Your task to perform on an android device: Show the shopping cart on amazon.com. Add razer blackwidow to the cart on amazon.com, then select checkout. Image 0: 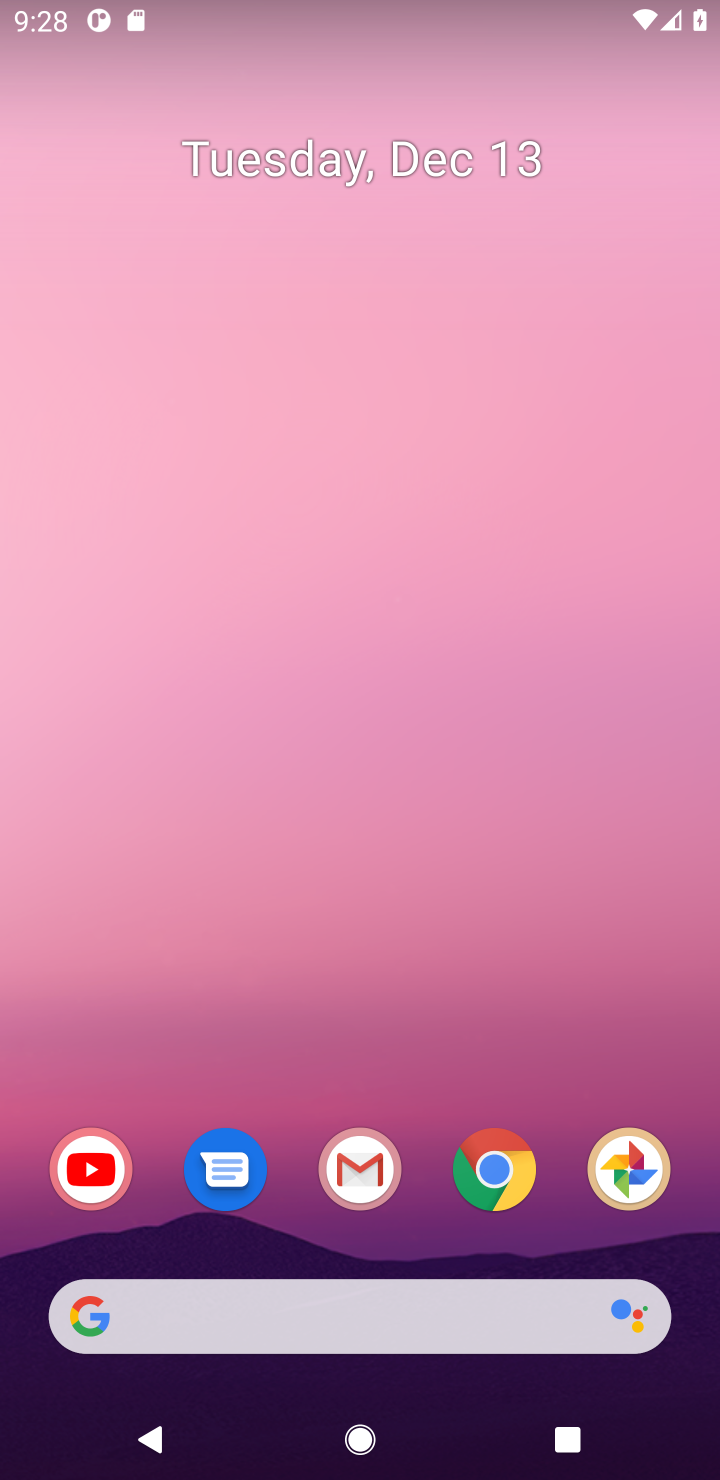
Step 0: click (390, 1278)
Your task to perform on an android device: Show the shopping cart on amazon.com. Add razer blackwidow to the cart on amazon.com, then select checkout. Image 1: 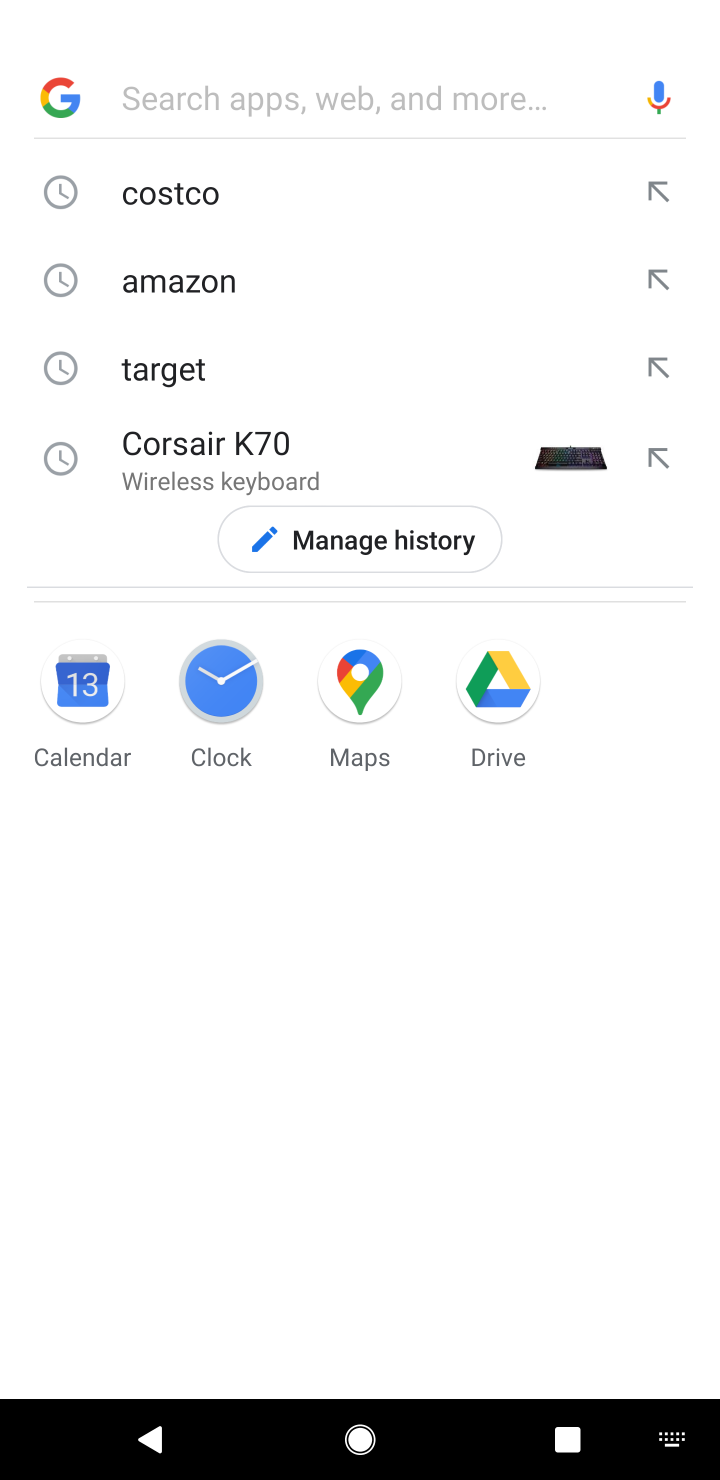
Step 1: click (210, 281)
Your task to perform on an android device: Show the shopping cart on amazon.com. Add razer blackwidow to the cart on amazon.com, then select checkout. Image 2: 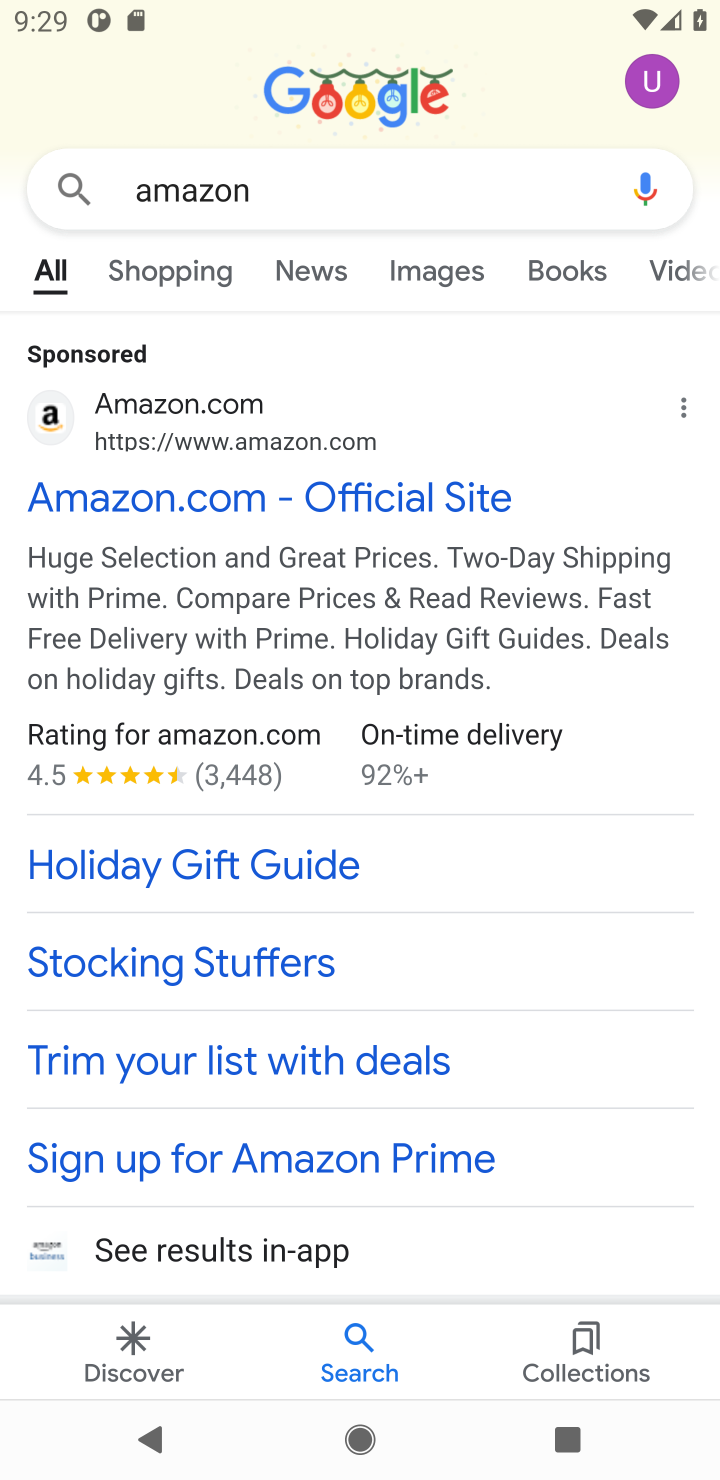
Step 2: click (184, 491)
Your task to perform on an android device: Show the shopping cart on amazon.com. Add razer blackwidow to the cart on amazon.com, then select checkout. Image 3: 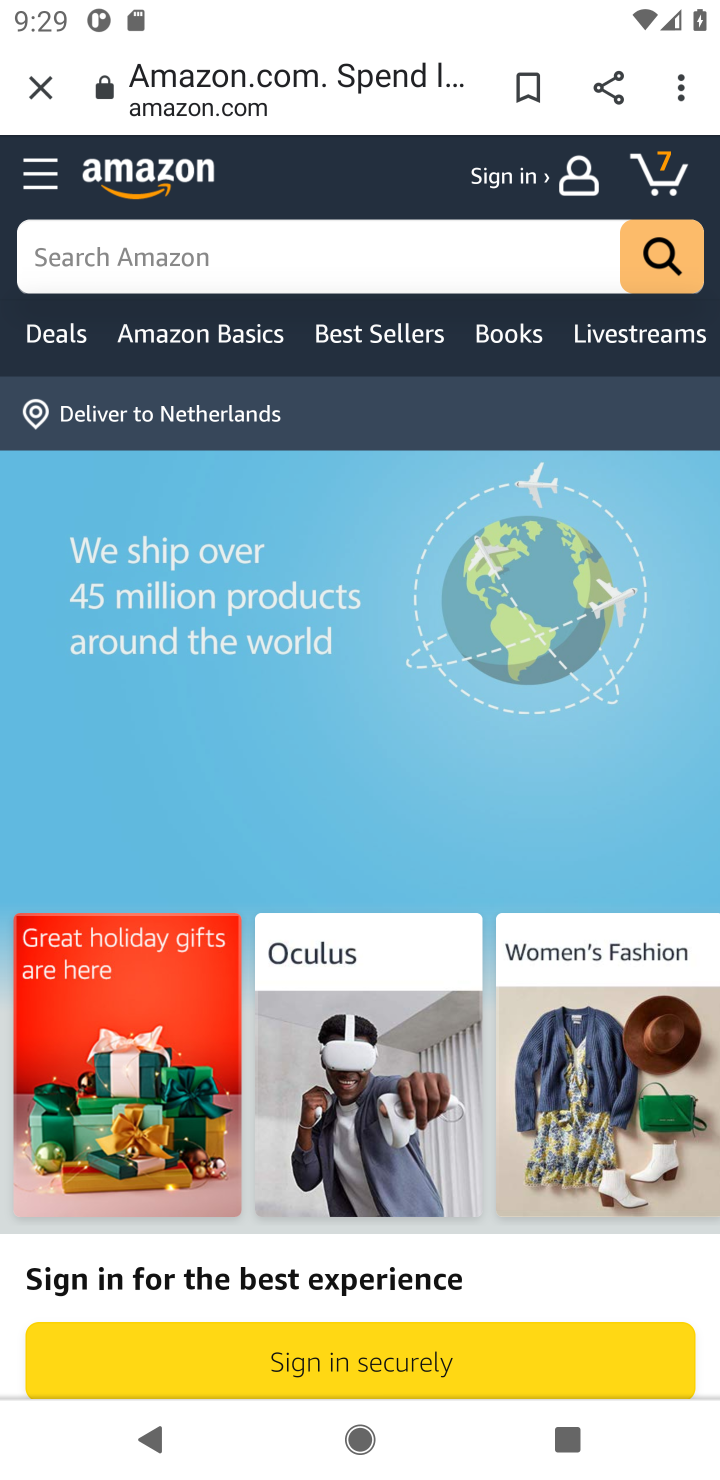
Step 3: click (152, 289)
Your task to perform on an android device: Show the shopping cart on amazon.com. Add razer blackwidow to the cart on amazon.com, then select checkout. Image 4: 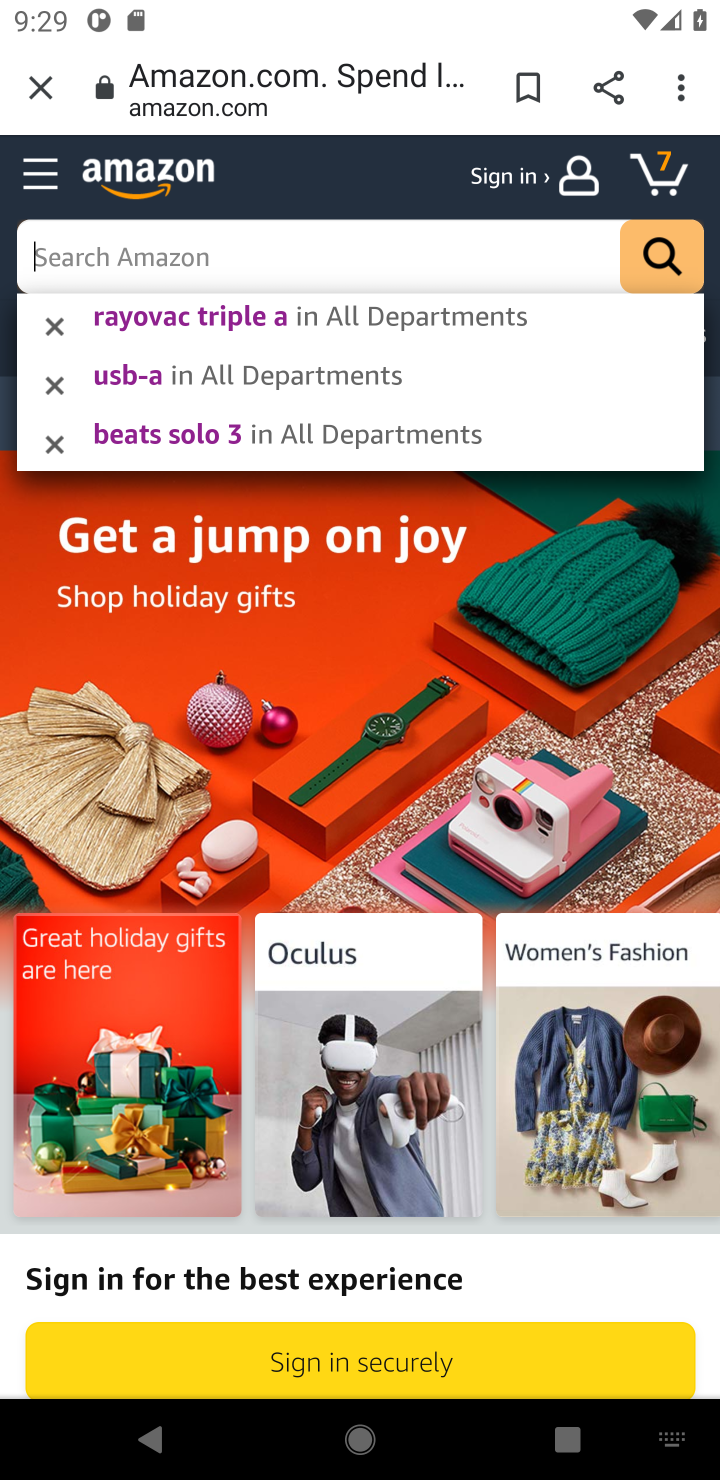
Step 4: type "razer blackwidow"
Your task to perform on an android device: Show the shopping cart on amazon.com. Add razer blackwidow to the cart on amazon.com, then select checkout. Image 5: 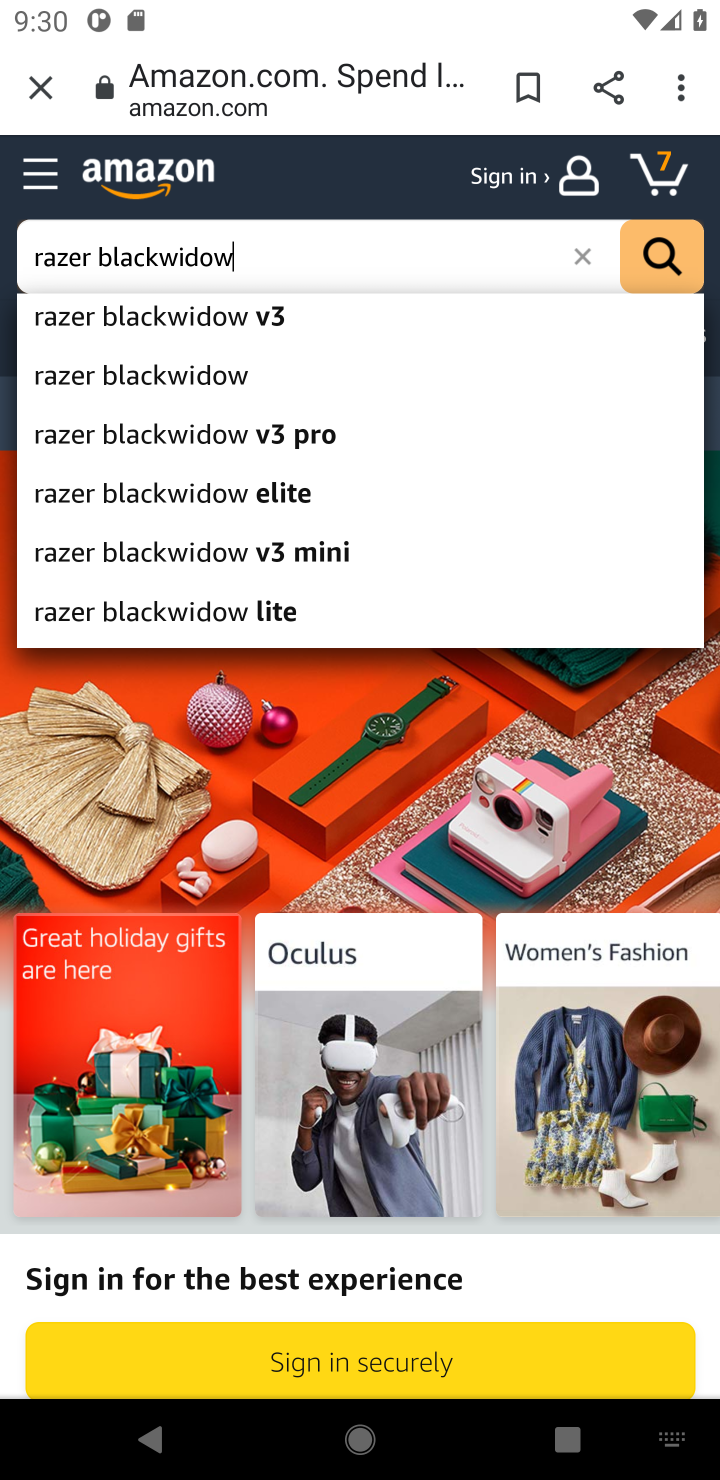
Step 5: click (642, 260)
Your task to perform on an android device: Show the shopping cart on amazon.com. Add razer blackwidow to the cart on amazon.com, then select checkout. Image 6: 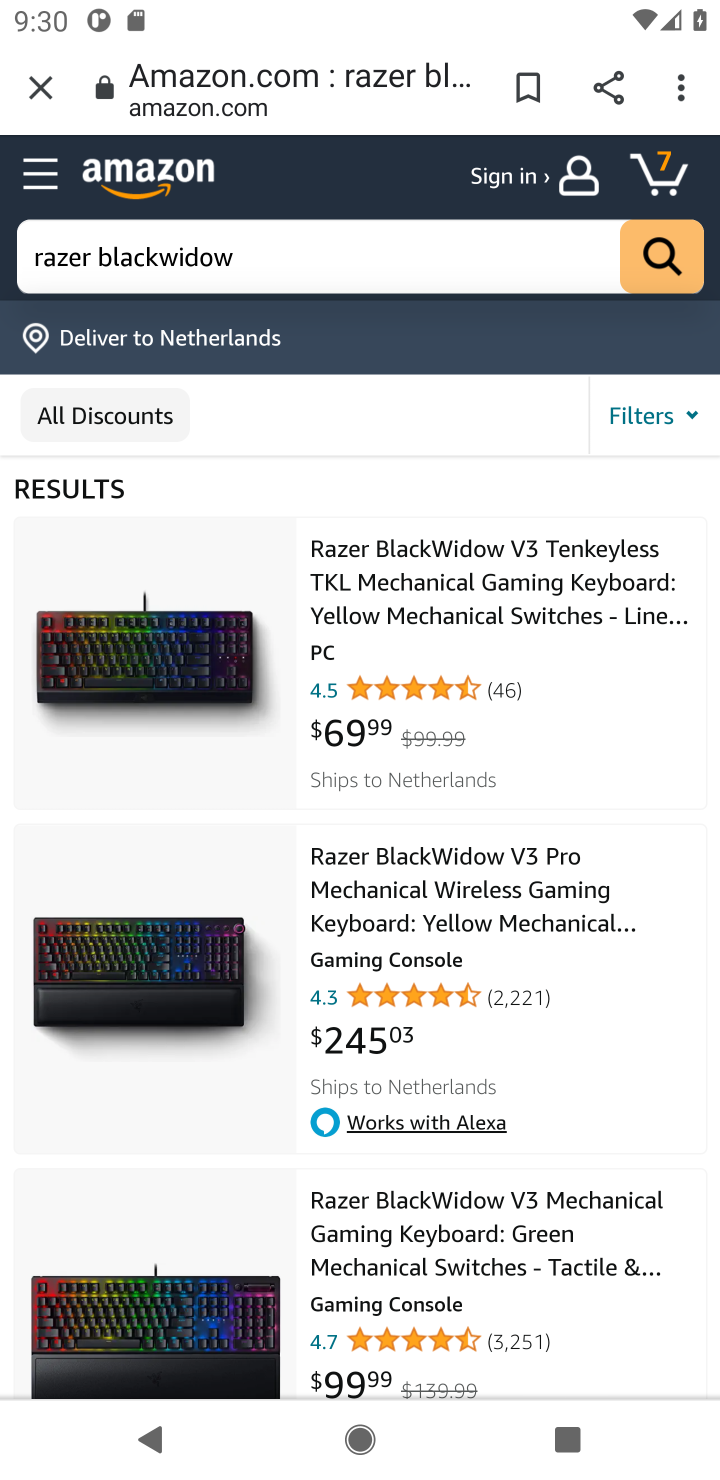
Step 6: click (462, 617)
Your task to perform on an android device: Show the shopping cart on amazon.com. Add razer blackwidow to the cart on amazon.com, then select checkout. Image 7: 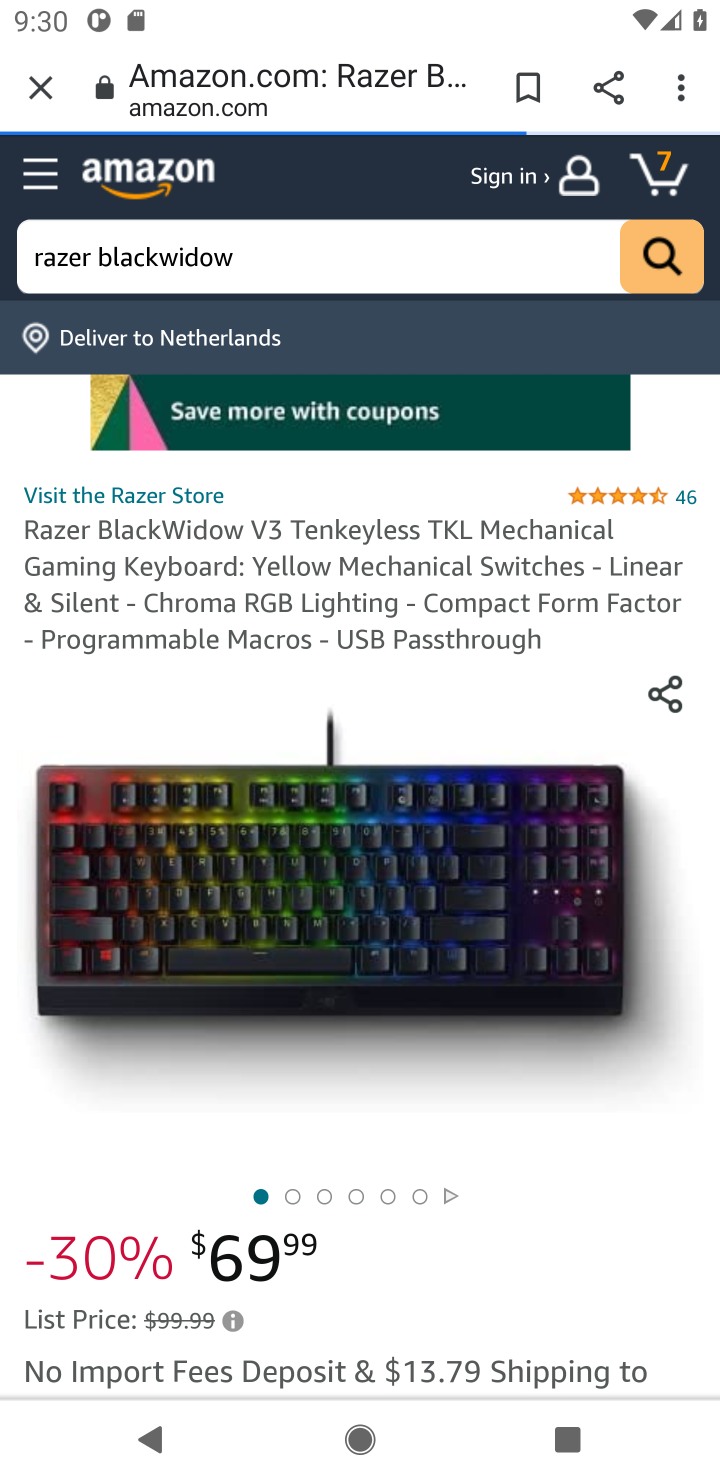
Step 7: drag from (437, 1144) to (455, 473)
Your task to perform on an android device: Show the shopping cart on amazon.com. Add razer blackwidow to the cart on amazon.com, then select checkout. Image 8: 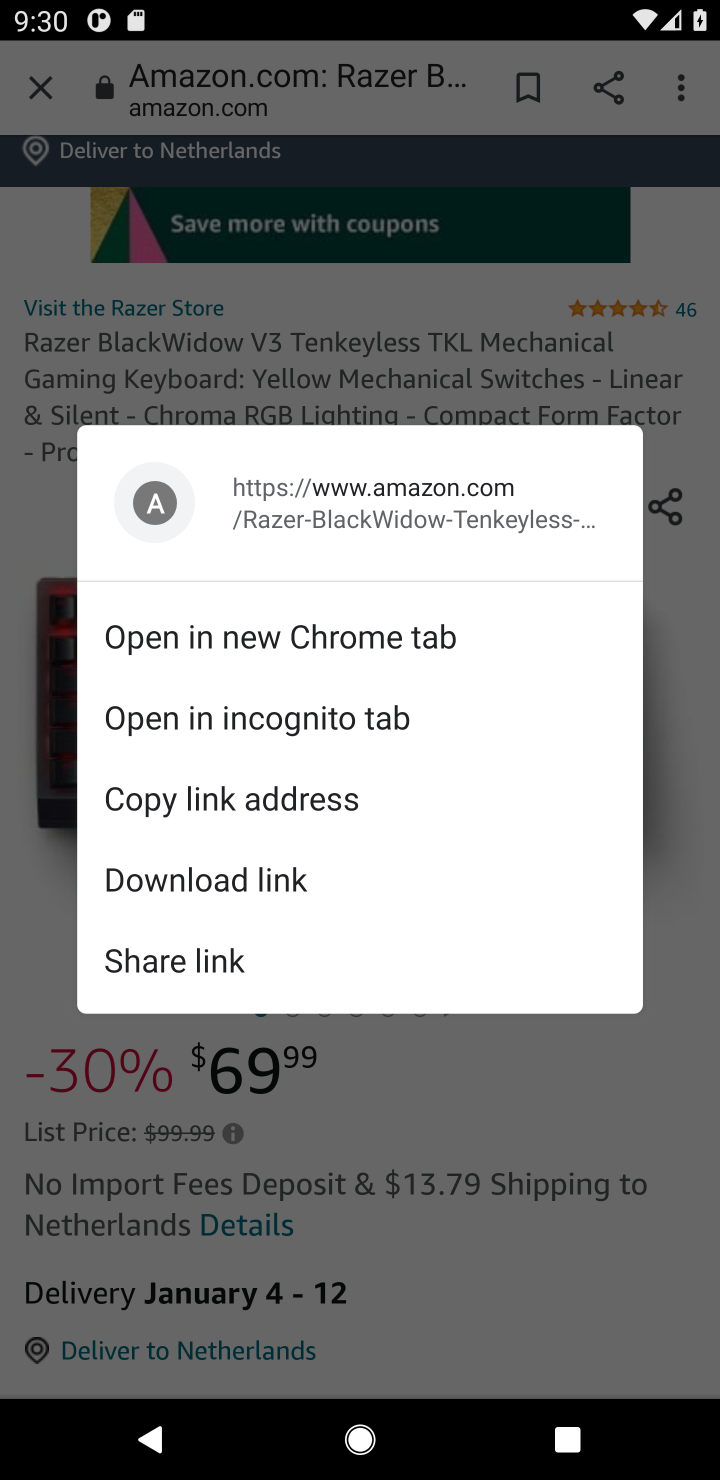
Step 8: click (474, 1067)
Your task to perform on an android device: Show the shopping cart on amazon.com. Add razer blackwidow to the cart on amazon.com, then select checkout. Image 9: 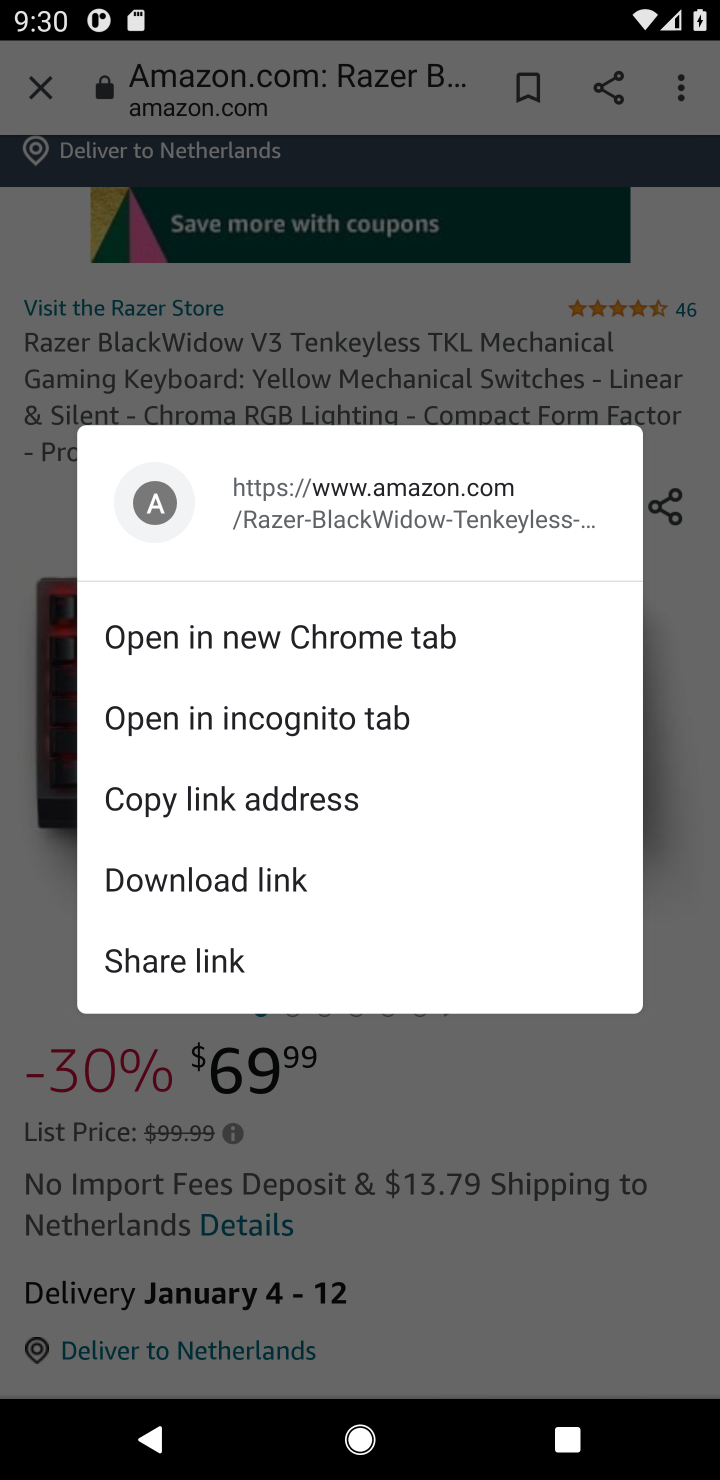
Step 9: drag from (474, 1067) to (509, 384)
Your task to perform on an android device: Show the shopping cart on amazon.com. Add razer blackwidow to the cart on amazon.com, then select checkout. Image 10: 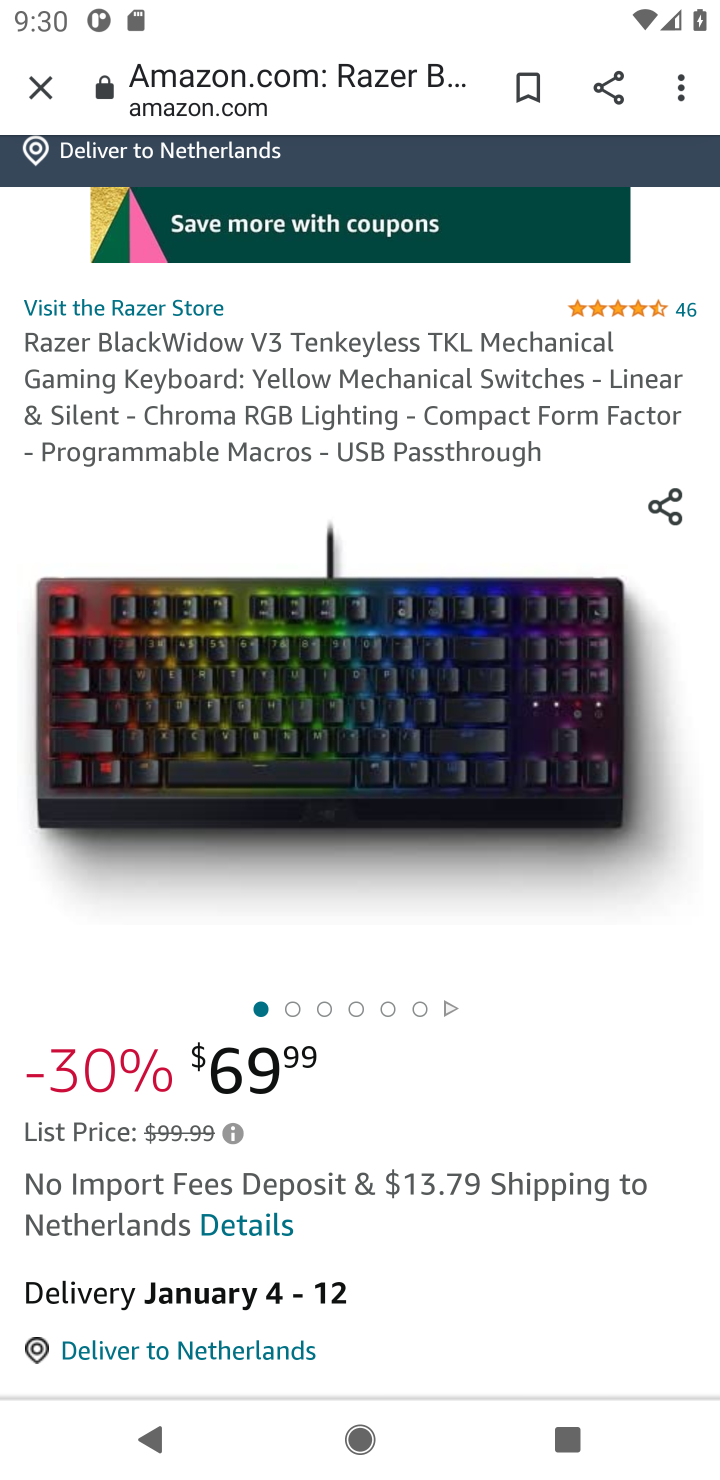
Step 10: drag from (562, 1325) to (544, 501)
Your task to perform on an android device: Show the shopping cart on amazon.com. Add razer blackwidow to the cart on amazon.com, then select checkout. Image 11: 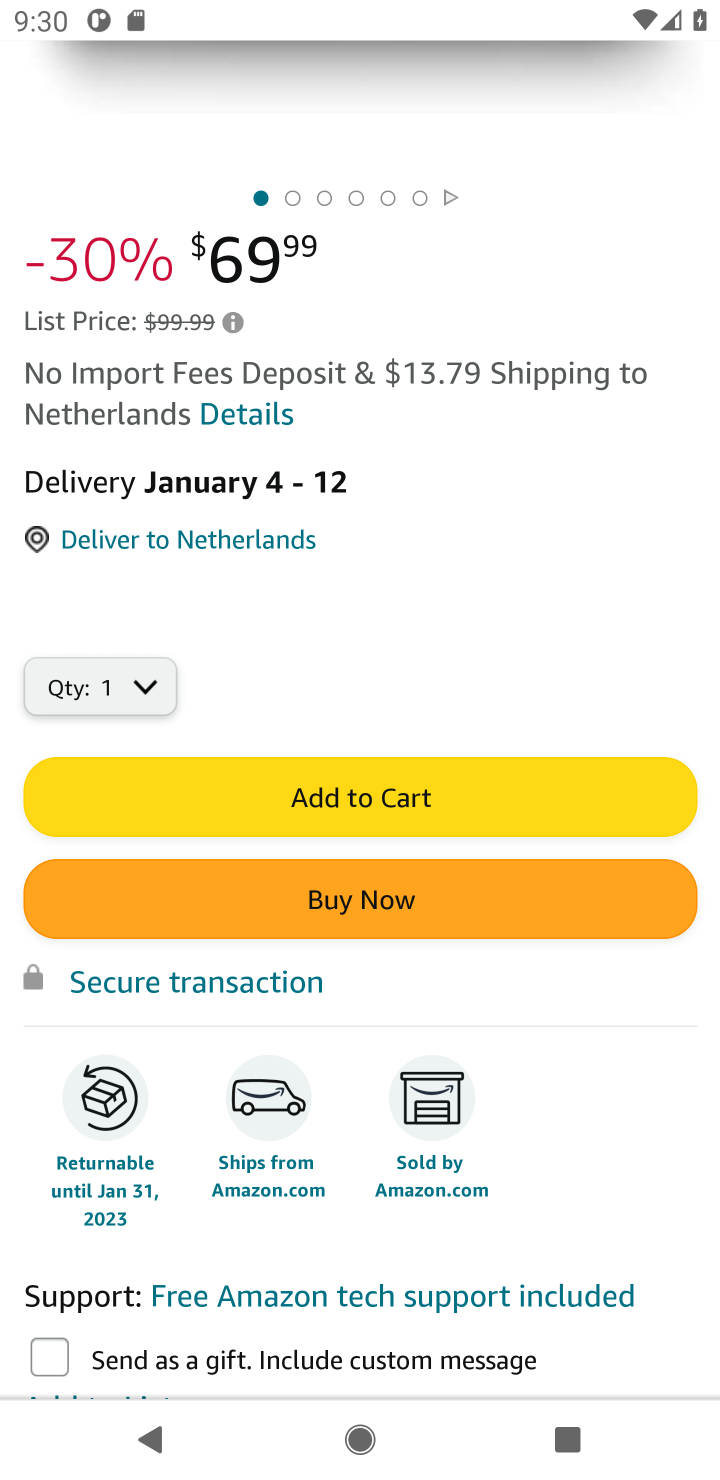
Step 11: click (398, 790)
Your task to perform on an android device: Show the shopping cart on amazon.com. Add razer blackwidow to the cart on amazon.com, then select checkout. Image 12: 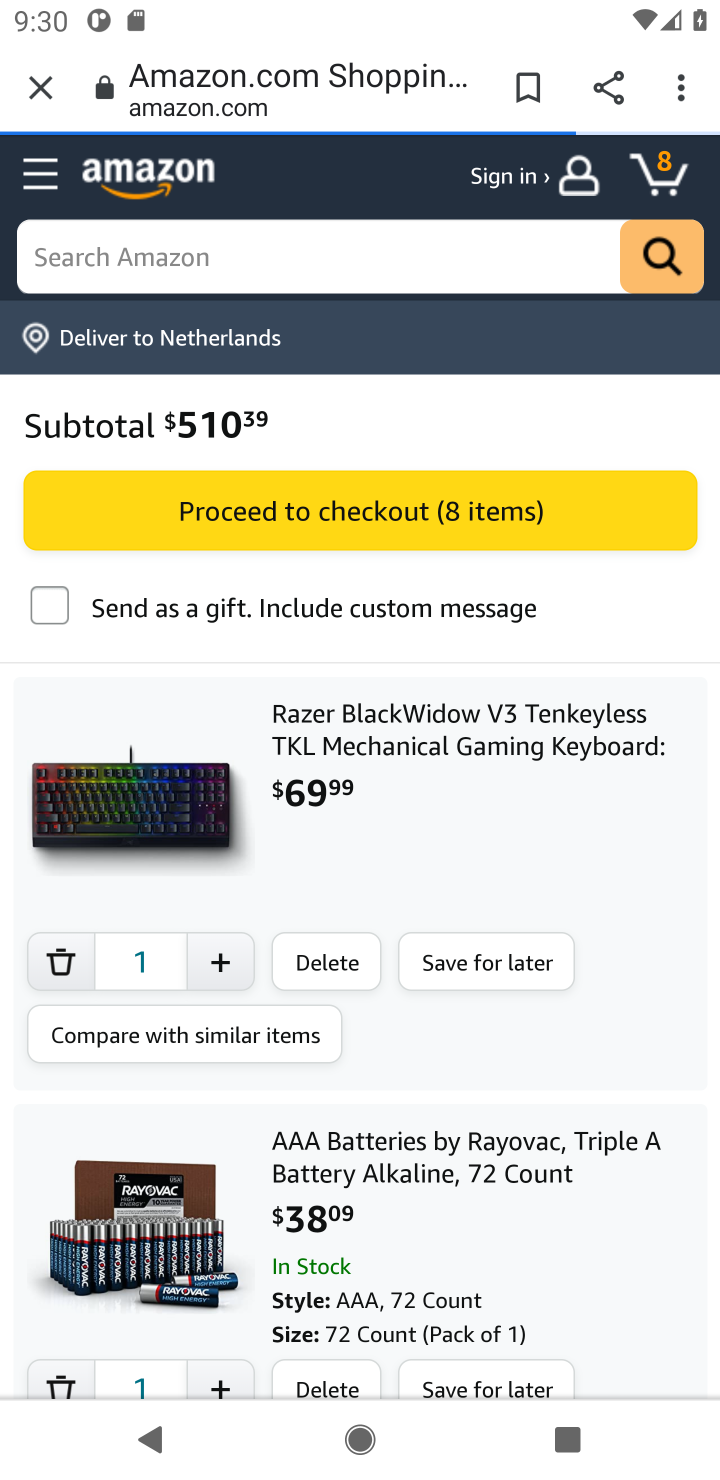
Step 12: task complete